Your task to perform on an android device: Open the calendar app, open the side menu, and click the "Day" option Image 0: 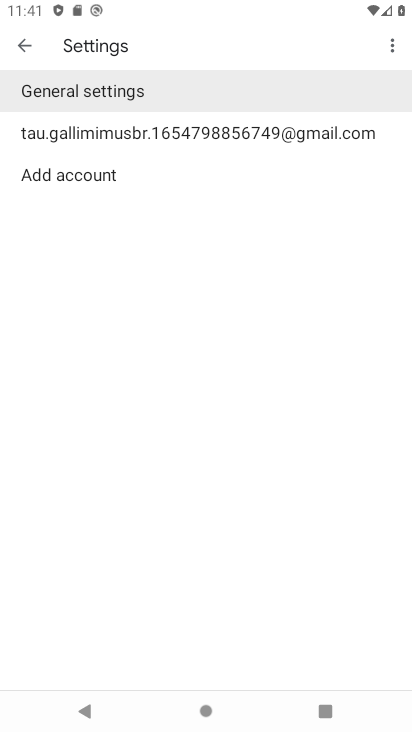
Step 0: press home button
Your task to perform on an android device: Open the calendar app, open the side menu, and click the "Day" option Image 1: 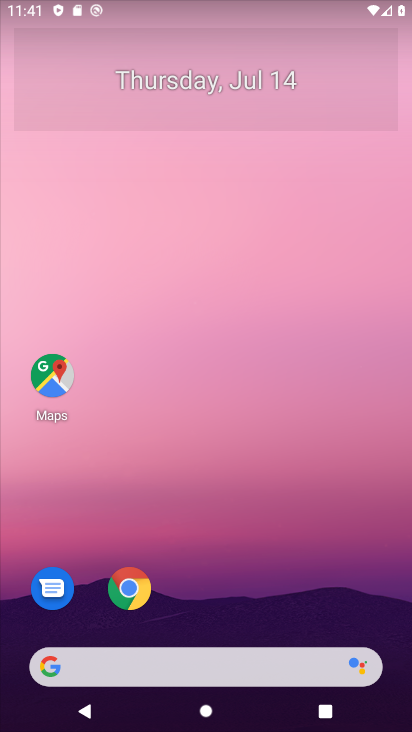
Step 1: drag from (162, 716) to (231, 264)
Your task to perform on an android device: Open the calendar app, open the side menu, and click the "Day" option Image 2: 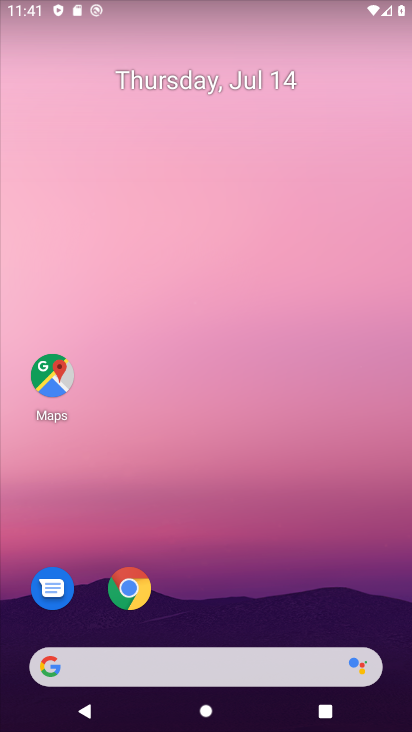
Step 2: drag from (260, 712) to (284, 201)
Your task to perform on an android device: Open the calendar app, open the side menu, and click the "Day" option Image 3: 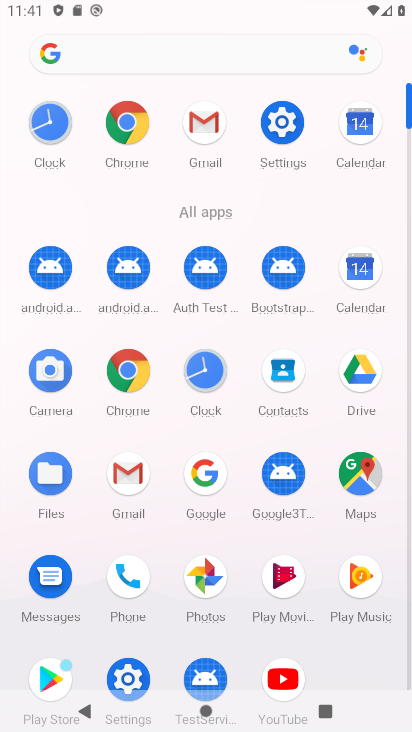
Step 3: click (365, 277)
Your task to perform on an android device: Open the calendar app, open the side menu, and click the "Day" option Image 4: 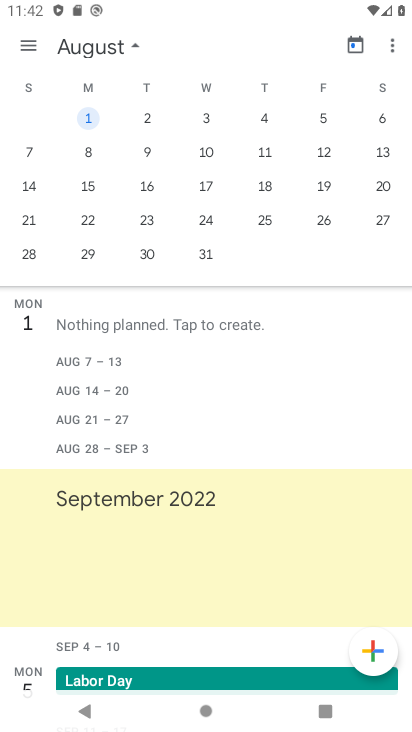
Step 4: click (33, 44)
Your task to perform on an android device: Open the calendar app, open the side menu, and click the "Day" option Image 5: 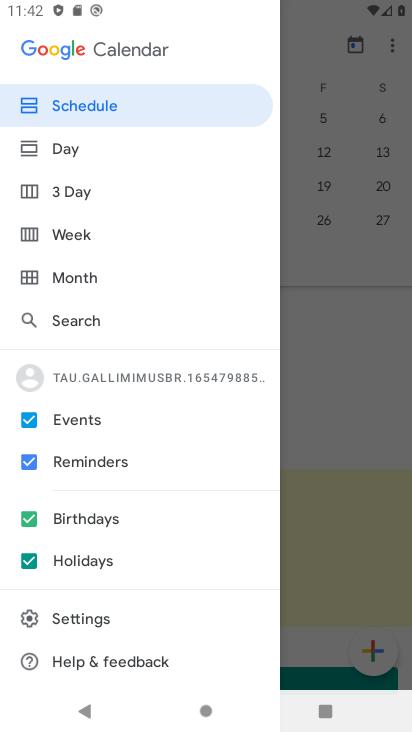
Step 5: click (83, 150)
Your task to perform on an android device: Open the calendar app, open the side menu, and click the "Day" option Image 6: 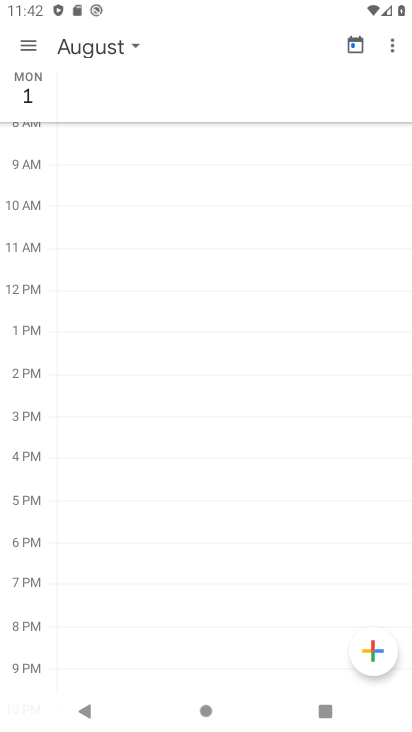
Step 6: task complete